Your task to perform on an android device: star an email in the gmail app Image 0: 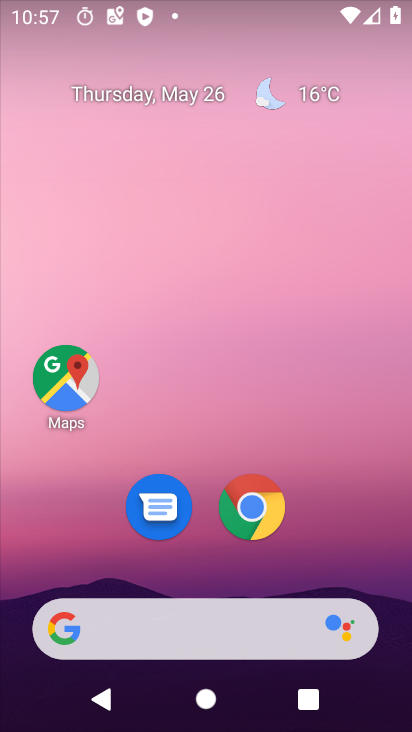
Step 0: drag from (234, 618) to (243, 170)
Your task to perform on an android device: star an email in the gmail app Image 1: 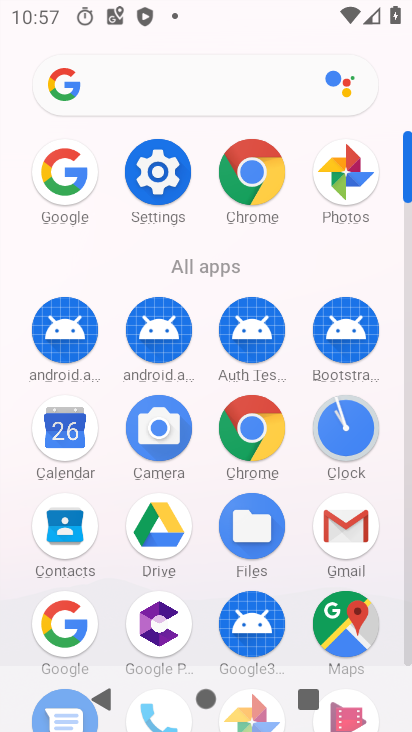
Step 1: click (345, 523)
Your task to perform on an android device: star an email in the gmail app Image 2: 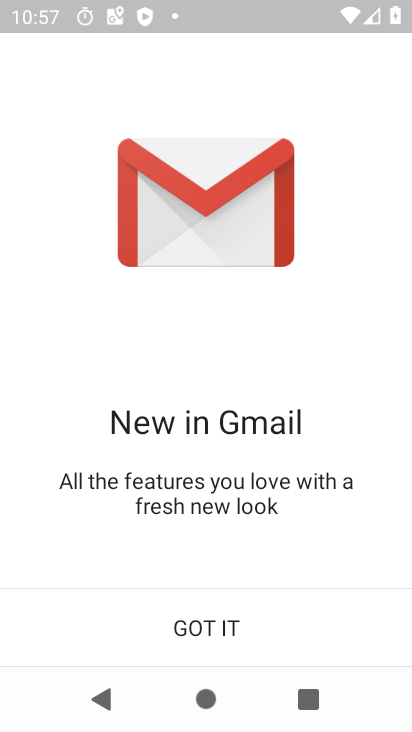
Step 2: click (205, 628)
Your task to perform on an android device: star an email in the gmail app Image 3: 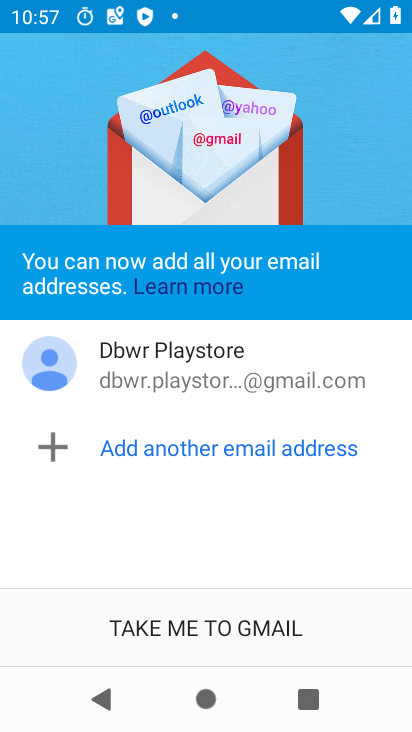
Step 3: click (207, 620)
Your task to perform on an android device: star an email in the gmail app Image 4: 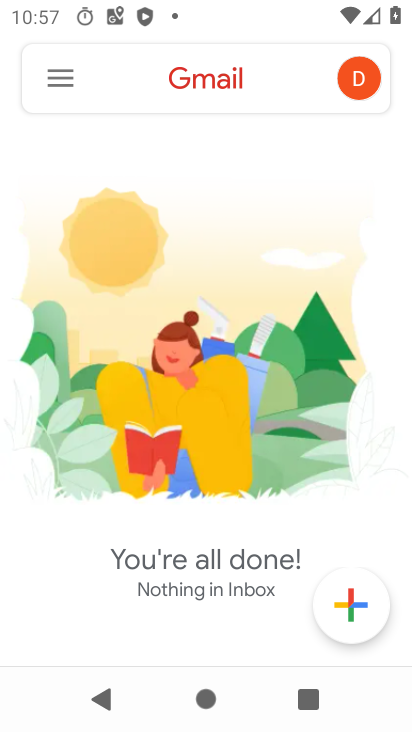
Step 4: click (64, 78)
Your task to perform on an android device: star an email in the gmail app Image 5: 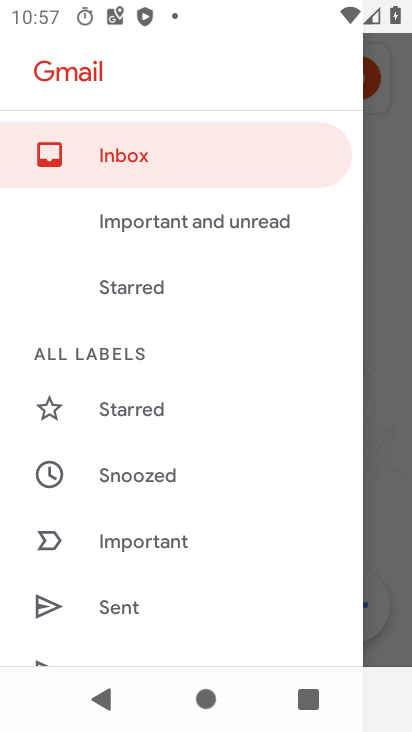
Step 5: click (145, 408)
Your task to perform on an android device: star an email in the gmail app Image 6: 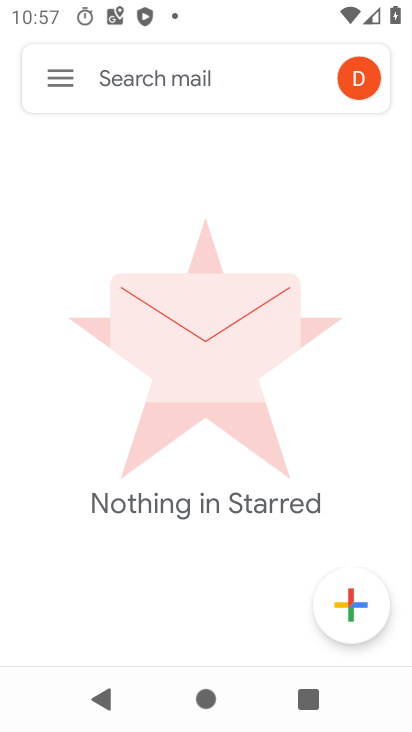
Step 6: task complete